Your task to perform on an android device: Show me popular games on the Play Store Image 0: 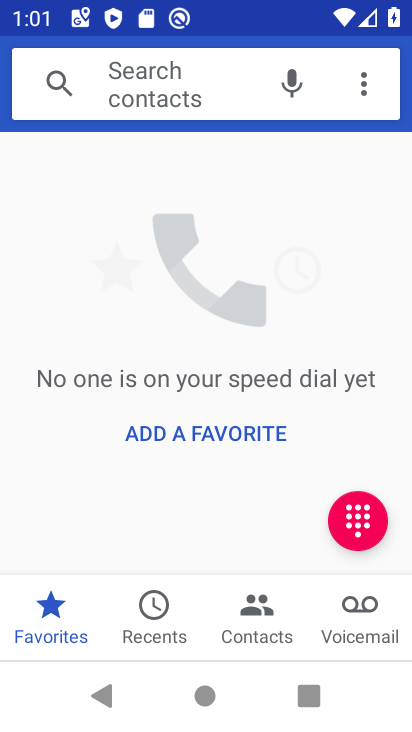
Step 0: press home button
Your task to perform on an android device: Show me popular games on the Play Store Image 1: 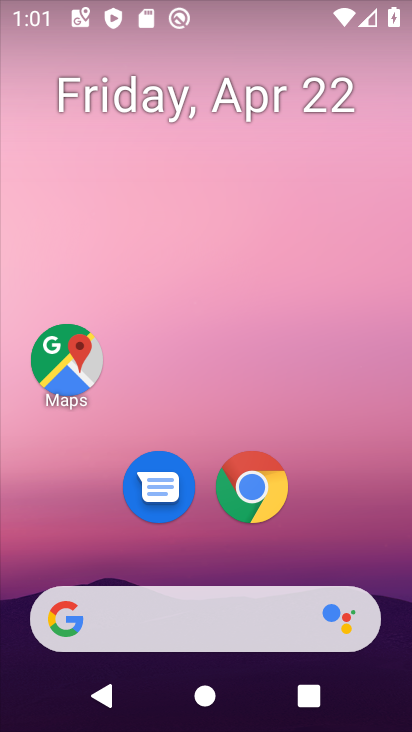
Step 1: drag from (338, 480) to (350, 210)
Your task to perform on an android device: Show me popular games on the Play Store Image 2: 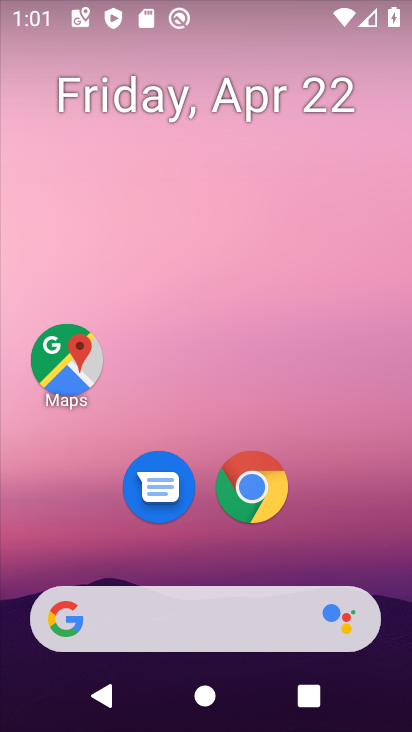
Step 2: drag from (329, 527) to (373, 157)
Your task to perform on an android device: Show me popular games on the Play Store Image 3: 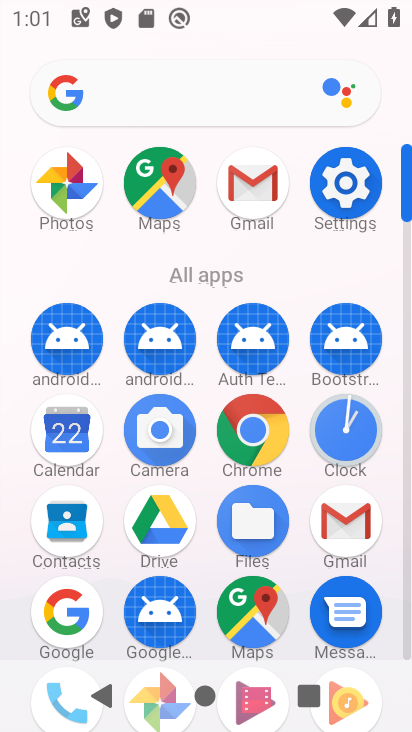
Step 3: drag from (210, 494) to (266, 216)
Your task to perform on an android device: Show me popular games on the Play Store Image 4: 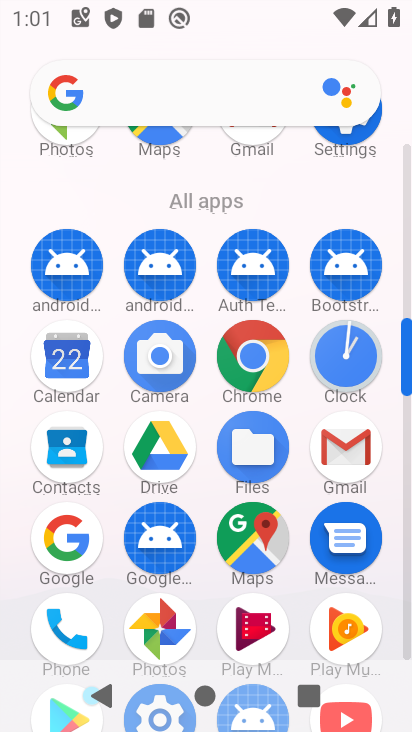
Step 4: drag from (208, 434) to (291, 93)
Your task to perform on an android device: Show me popular games on the Play Store Image 5: 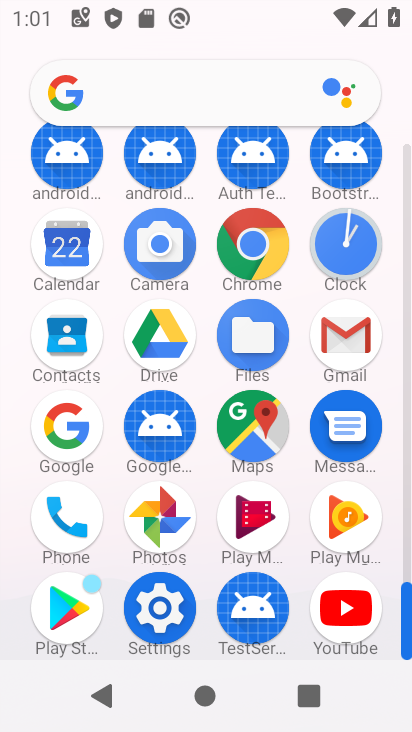
Step 5: click (70, 595)
Your task to perform on an android device: Show me popular games on the Play Store Image 6: 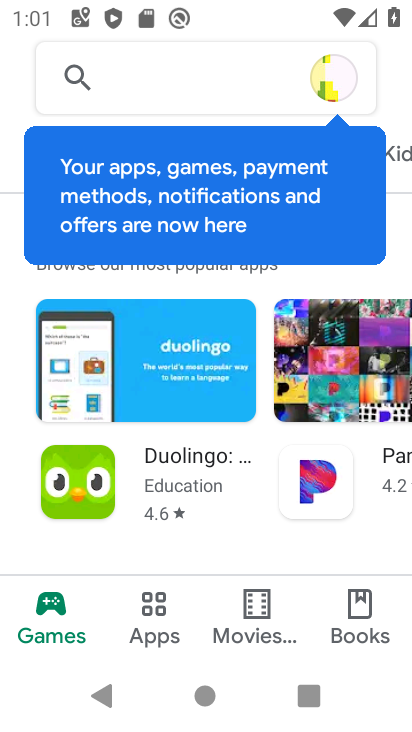
Step 6: click (187, 72)
Your task to perform on an android device: Show me popular games on the Play Store Image 7: 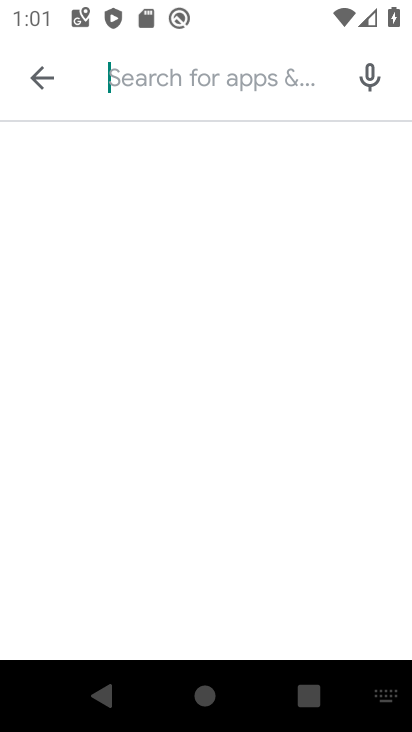
Step 7: type "popular games"
Your task to perform on an android device: Show me popular games on the Play Store Image 8: 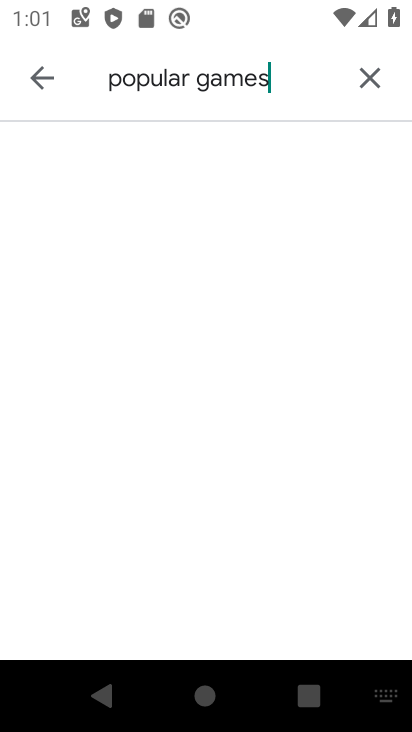
Step 8: type ""
Your task to perform on an android device: Show me popular games on the Play Store Image 9: 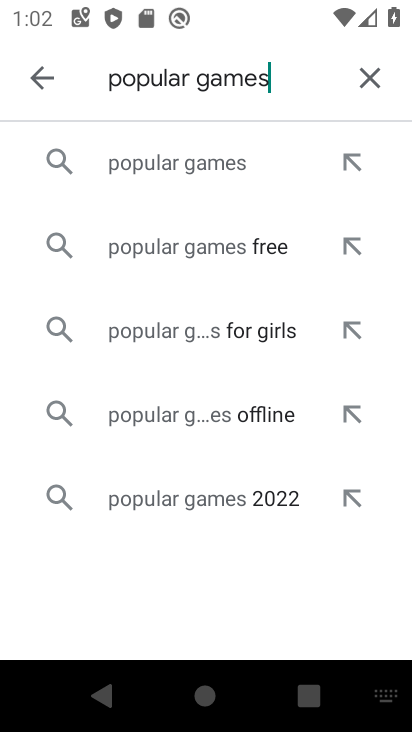
Step 9: click (160, 157)
Your task to perform on an android device: Show me popular games on the Play Store Image 10: 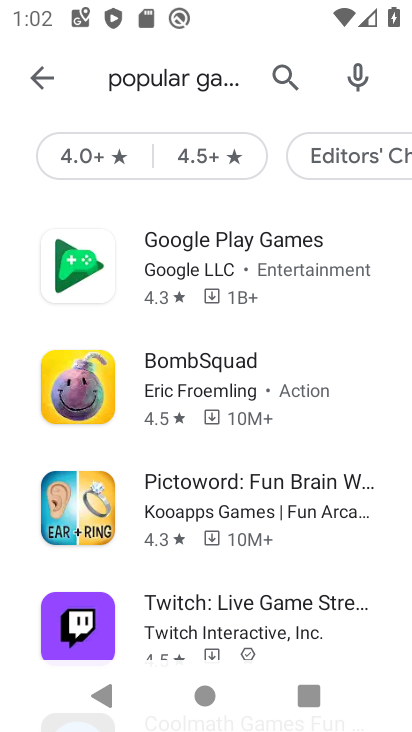
Step 10: task complete